Your task to perform on an android device: Open Chrome and go to the settings page Image 0: 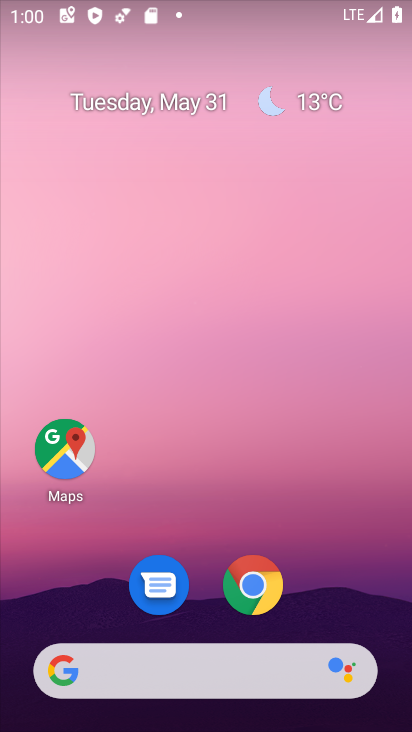
Step 0: click (245, 590)
Your task to perform on an android device: Open Chrome and go to the settings page Image 1: 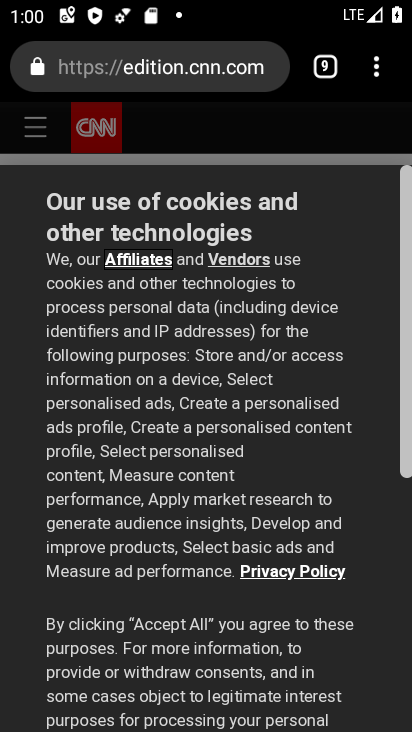
Step 1: click (379, 70)
Your task to perform on an android device: Open Chrome and go to the settings page Image 2: 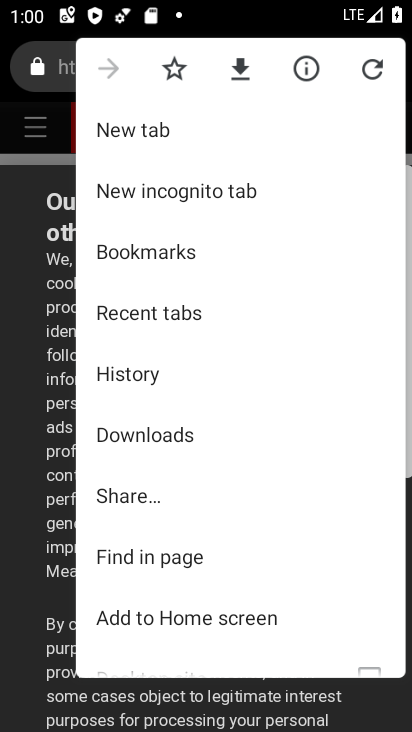
Step 2: drag from (206, 532) to (235, 137)
Your task to perform on an android device: Open Chrome and go to the settings page Image 3: 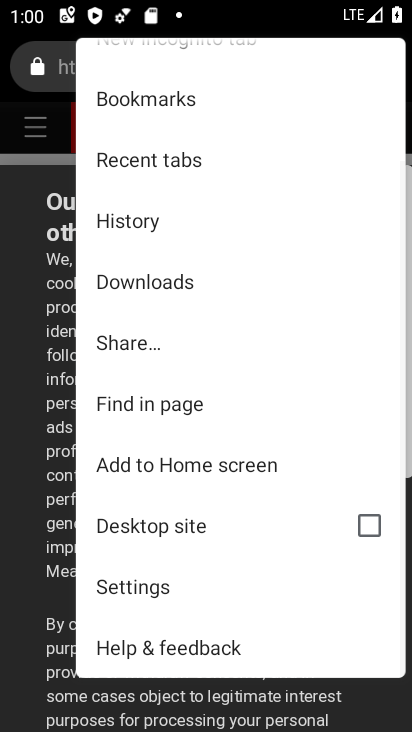
Step 3: click (137, 584)
Your task to perform on an android device: Open Chrome and go to the settings page Image 4: 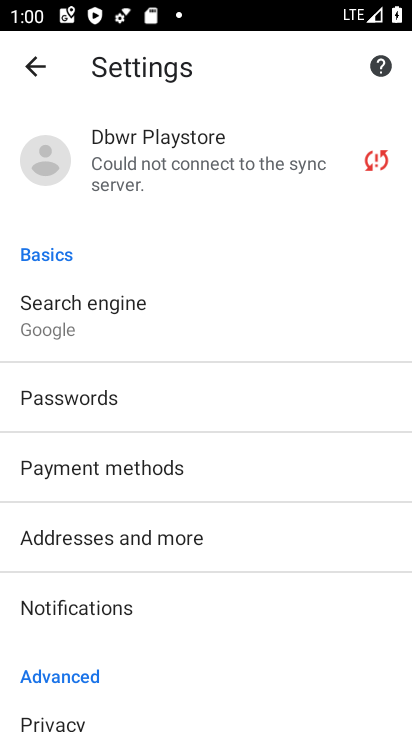
Step 4: task complete